Your task to perform on an android device: change alarm snooze length Image 0: 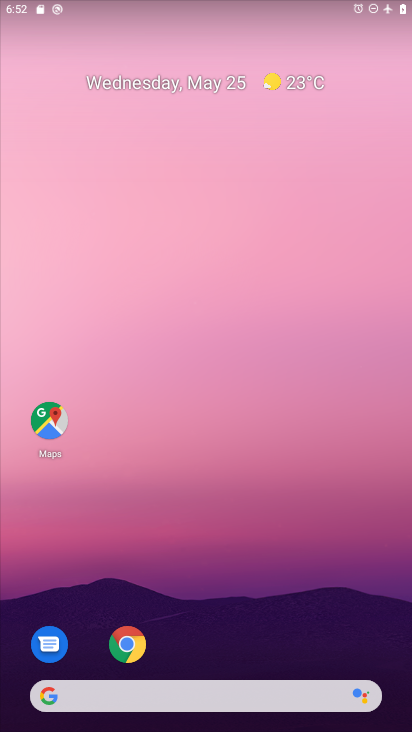
Step 0: drag from (366, 626) to (246, 49)
Your task to perform on an android device: change alarm snooze length Image 1: 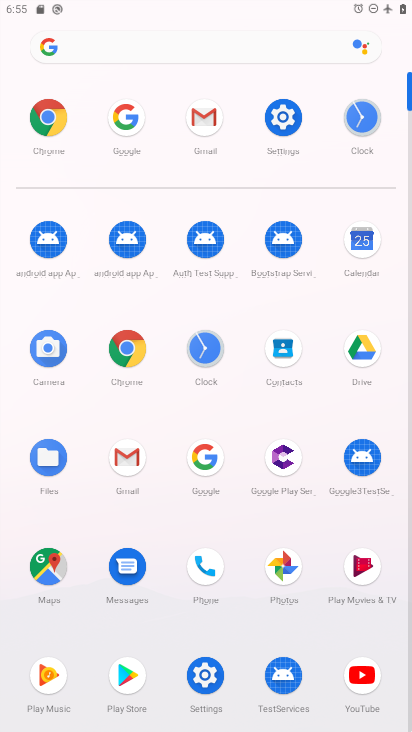
Step 1: click (217, 360)
Your task to perform on an android device: change alarm snooze length Image 2: 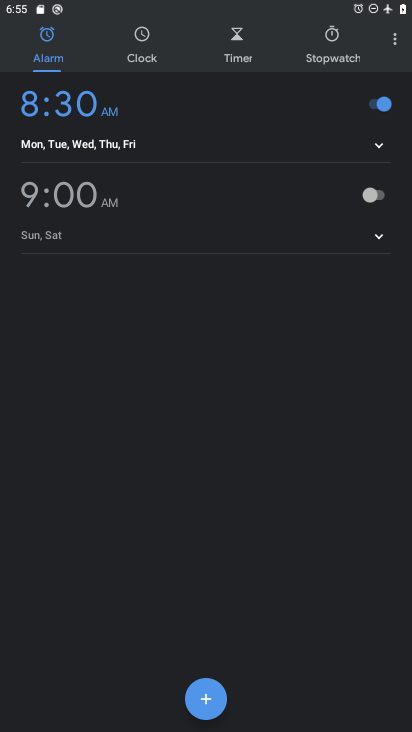
Step 2: click (392, 47)
Your task to perform on an android device: change alarm snooze length Image 3: 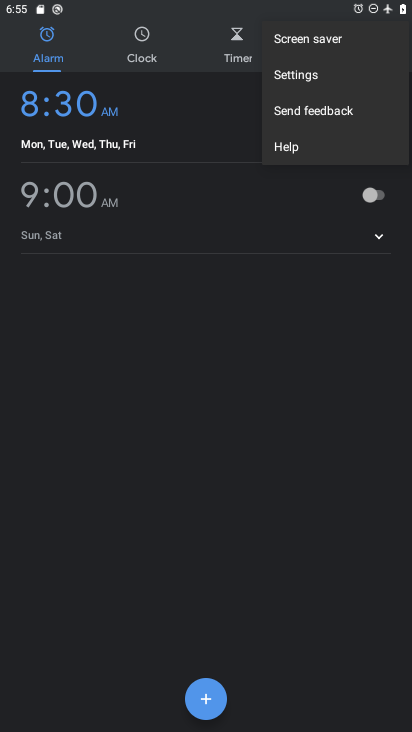
Step 3: click (304, 84)
Your task to perform on an android device: change alarm snooze length Image 4: 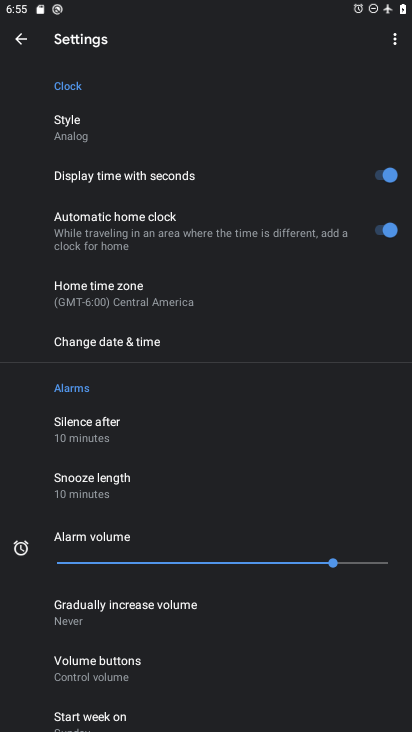
Step 4: click (115, 491)
Your task to perform on an android device: change alarm snooze length Image 5: 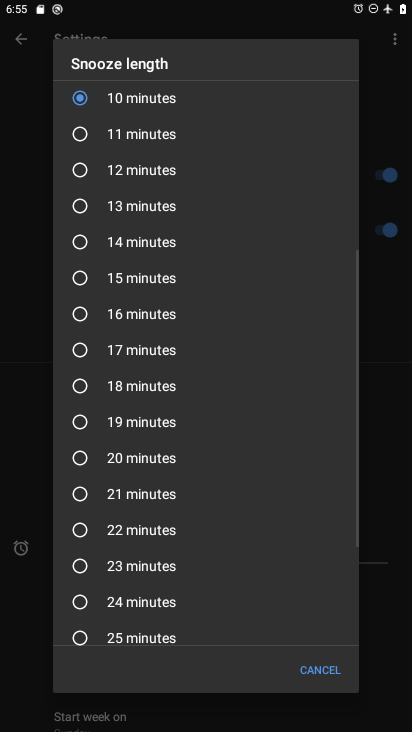
Step 5: click (115, 535)
Your task to perform on an android device: change alarm snooze length Image 6: 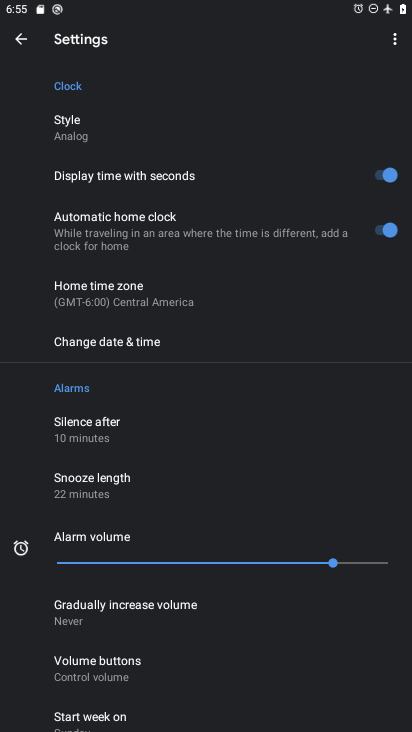
Step 6: task complete